Your task to perform on an android device: toggle sleep mode Image 0: 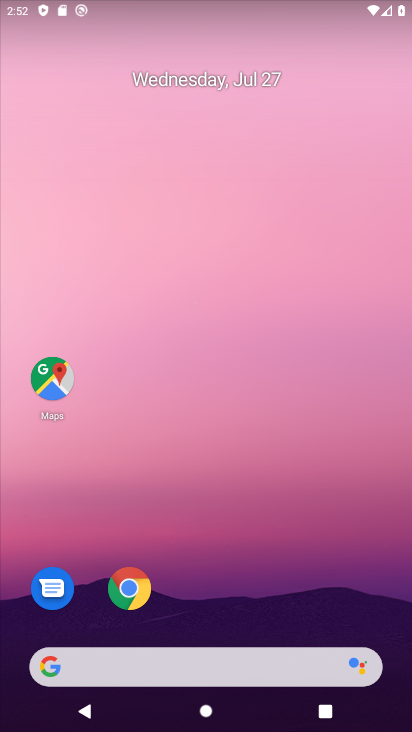
Step 0: drag from (226, 623) to (373, 121)
Your task to perform on an android device: toggle sleep mode Image 1: 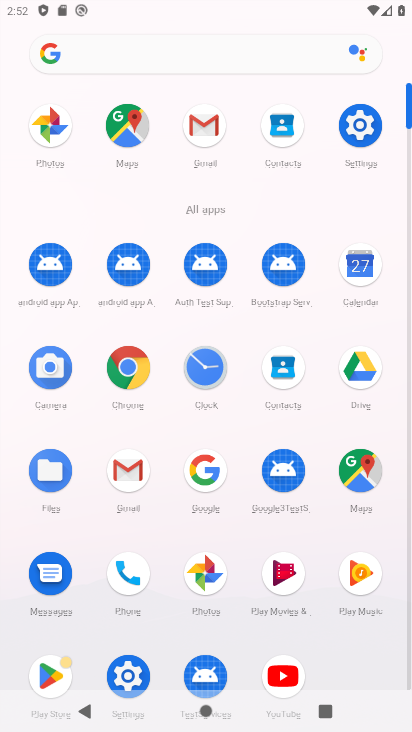
Step 1: click (366, 126)
Your task to perform on an android device: toggle sleep mode Image 2: 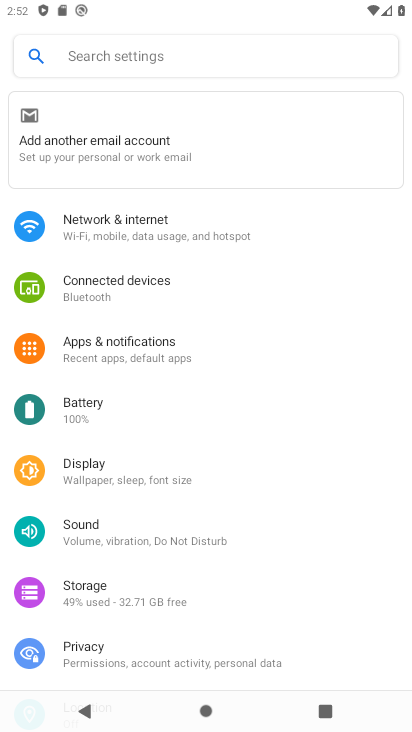
Step 2: click (90, 466)
Your task to perform on an android device: toggle sleep mode Image 3: 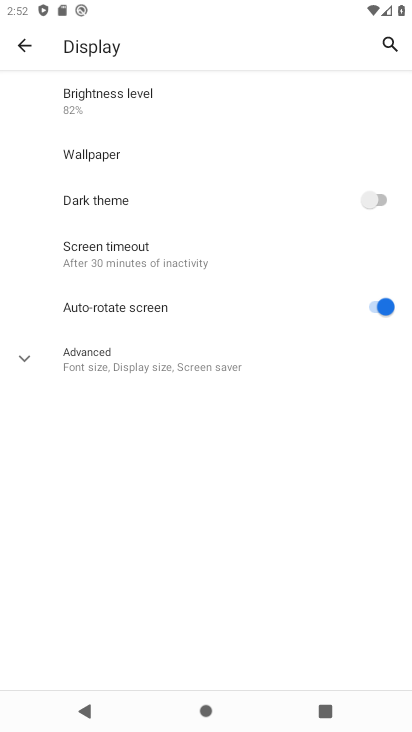
Step 3: click (11, 359)
Your task to perform on an android device: toggle sleep mode Image 4: 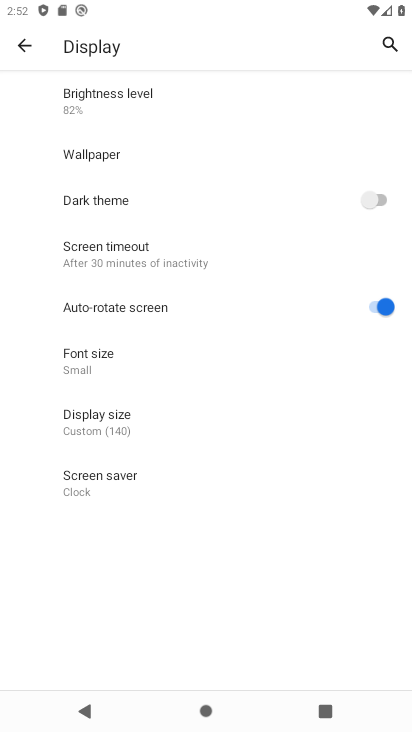
Step 4: task complete